Your task to perform on an android device: Go to network settings Image 0: 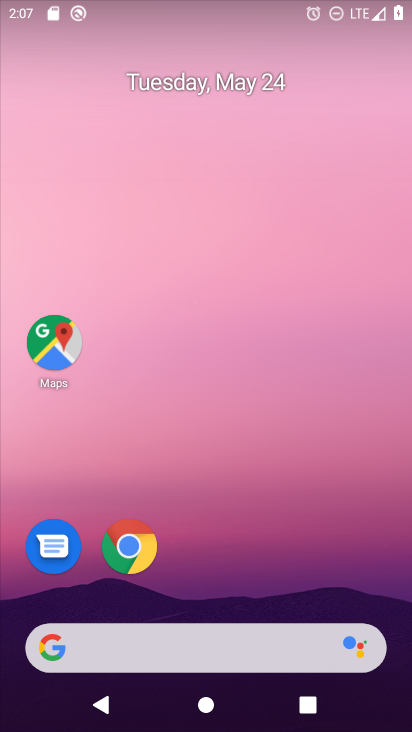
Step 0: drag from (298, 537) to (298, 4)
Your task to perform on an android device: Go to network settings Image 1: 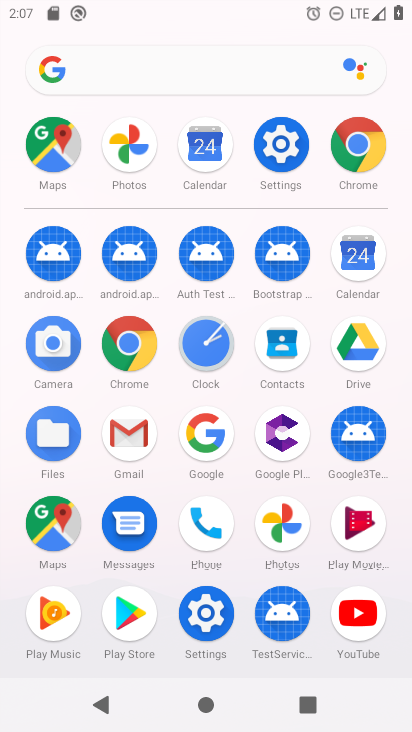
Step 1: click (268, 148)
Your task to perform on an android device: Go to network settings Image 2: 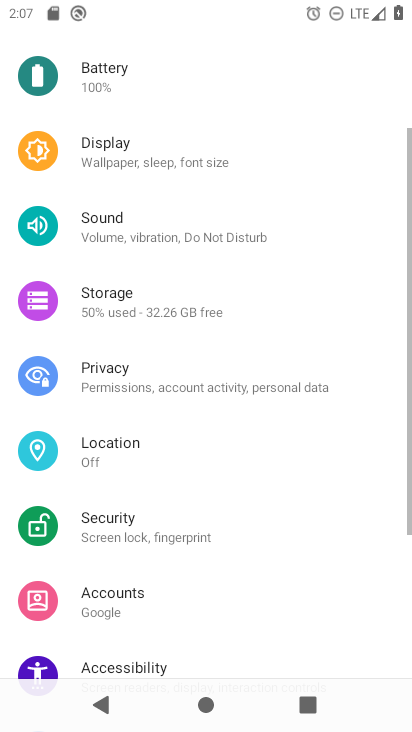
Step 2: drag from (177, 123) to (136, 711)
Your task to perform on an android device: Go to network settings Image 3: 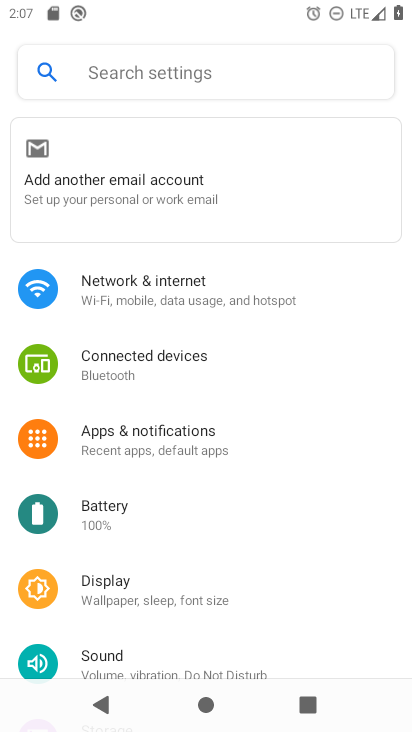
Step 3: click (175, 287)
Your task to perform on an android device: Go to network settings Image 4: 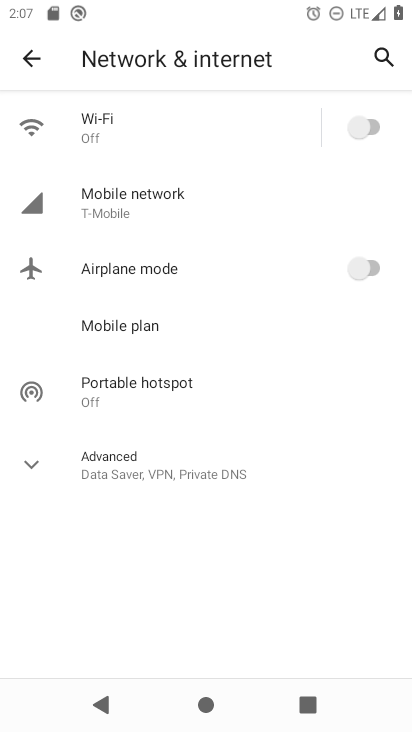
Step 4: task complete